Your task to perform on an android device: Go to Maps Image 0: 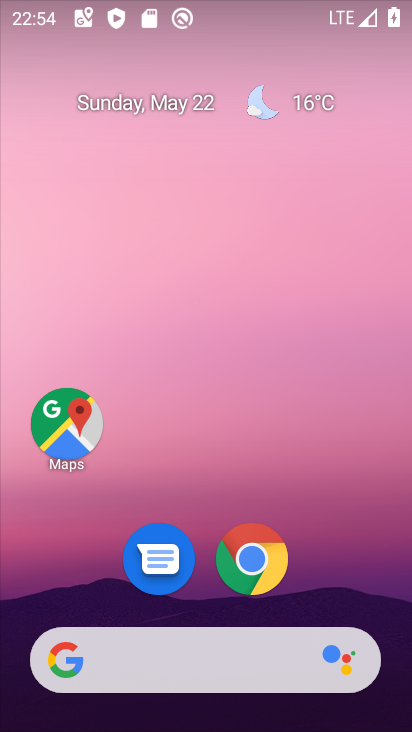
Step 0: press home button
Your task to perform on an android device: Go to Maps Image 1: 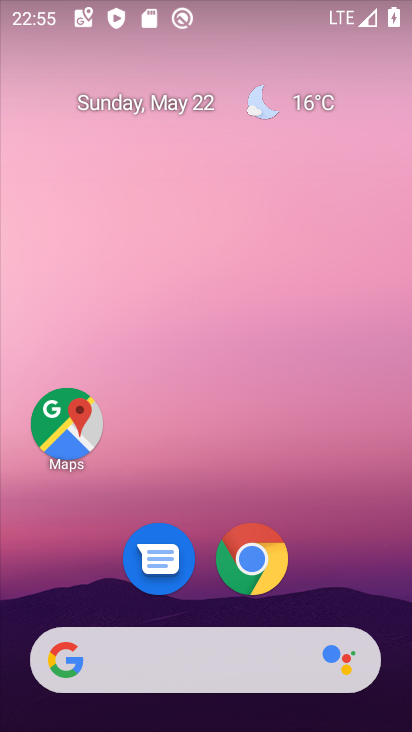
Step 1: click (82, 421)
Your task to perform on an android device: Go to Maps Image 2: 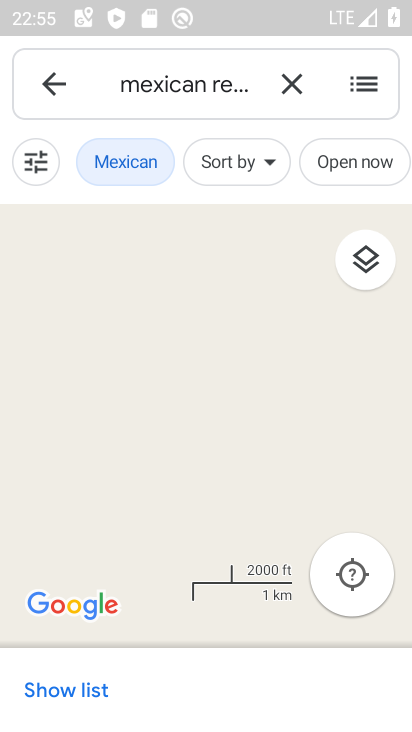
Step 2: click (42, 83)
Your task to perform on an android device: Go to Maps Image 3: 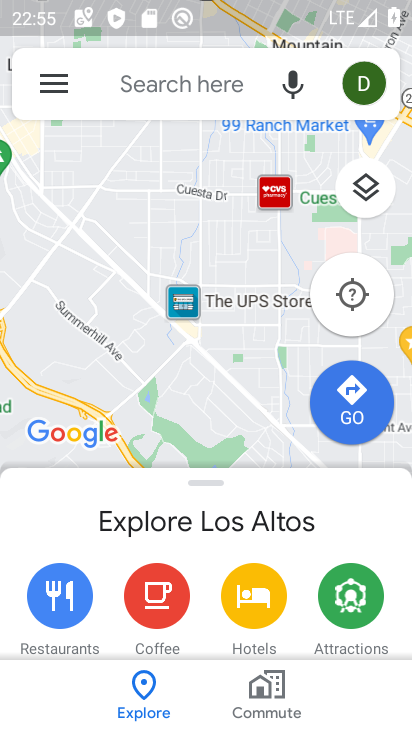
Step 3: task complete